Your task to perform on an android device: Do I have any events tomorrow? Image 0: 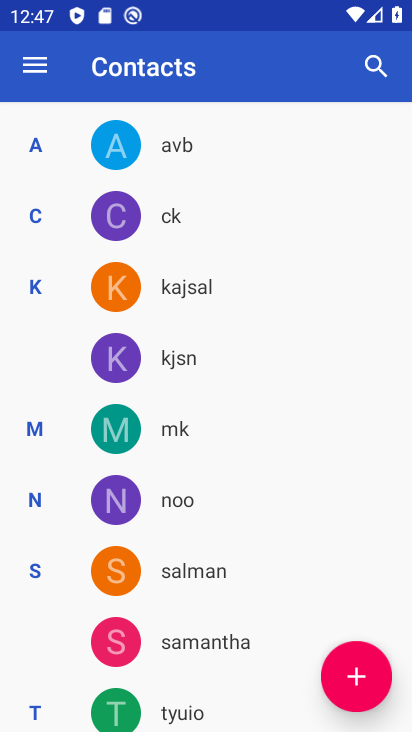
Step 0: press home button
Your task to perform on an android device: Do I have any events tomorrow? Image 1: 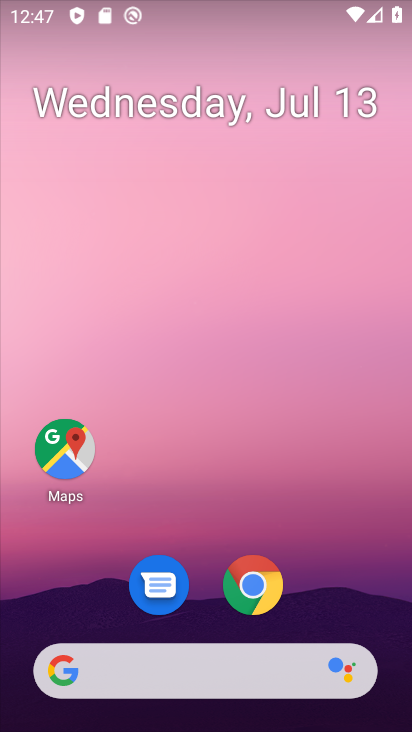
Step 1: drag from (277, 521) to (236, 67)
Your task to perform on an android device: Do I have any events tomorrow? Image 2: 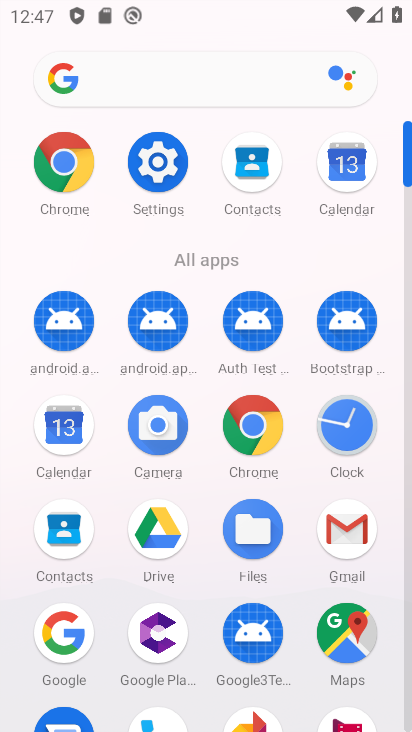
Step 2: click (76, 416)
Your task to perform on an android device: Do I have any events tomorrow? Image 3: 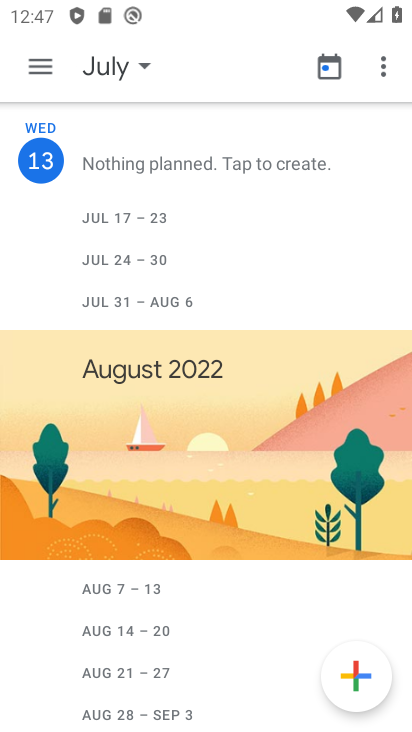
Step 3: click (39, 68)
Your task to perform on an android device: Do I have any events tomorrow? Image 4: 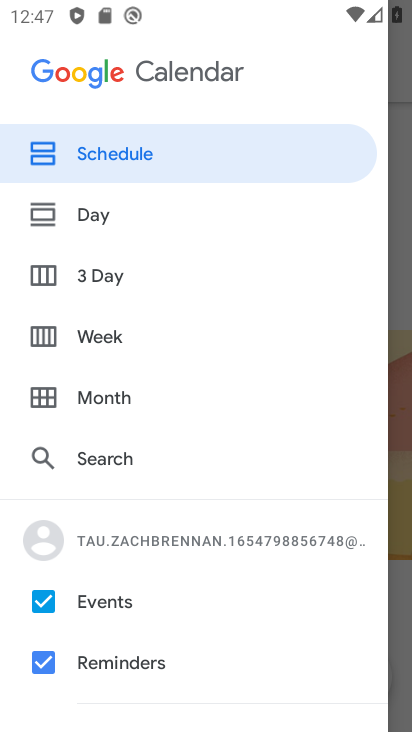
Step 4: click (90, 266)
Your task to perform on an android device: Do I have any events tomorrow? Image 5: 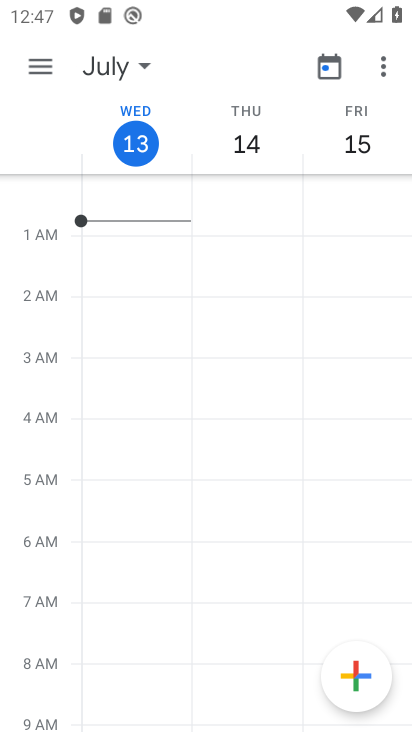
Step 5: task complete